Your task to perform on an android device: turn off notifications in google photos Image 0: 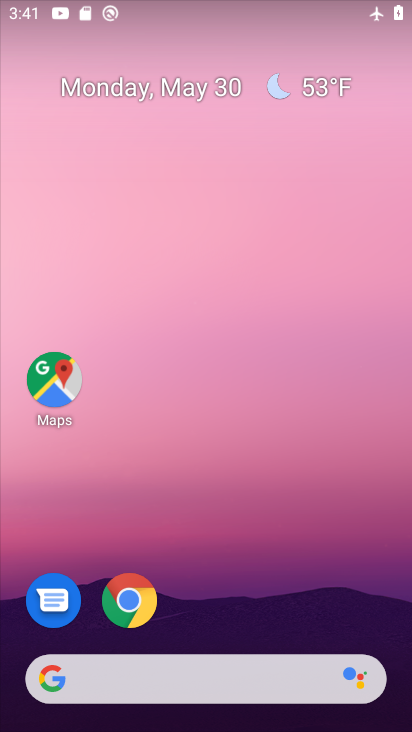
Step 0: drag from (328, 469) to (407, 0)
Your task to perform on an android device: turn off notifications in google photos Image 1: 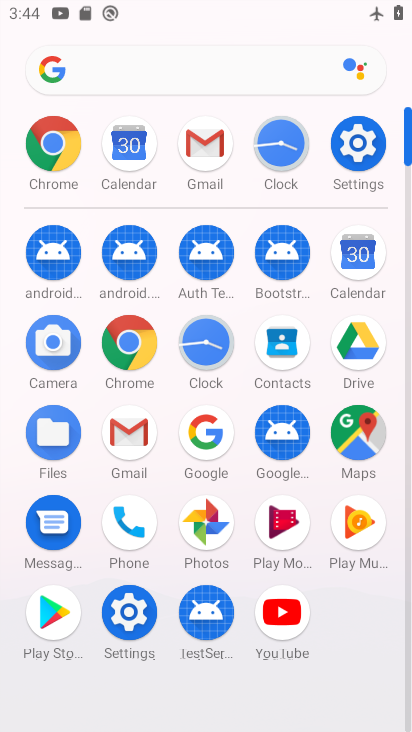
Step 1: click (215, 527)
Your task to perform on an android device: turn off notifications in google photos Image 2: 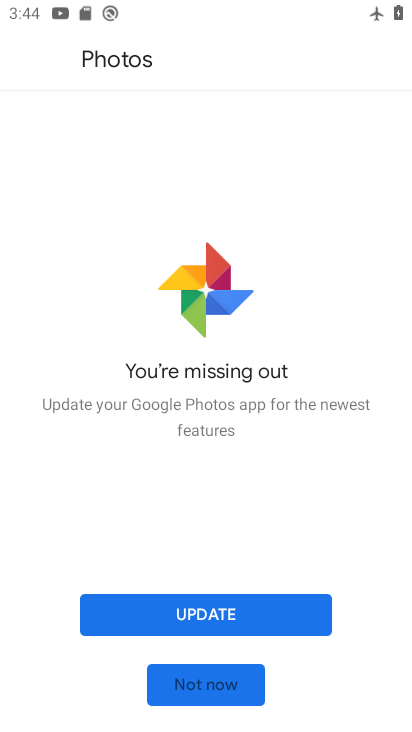
Step 2: click (221, 612)
Your task to perform on an android device: turn off notifications in google photos Image 3: 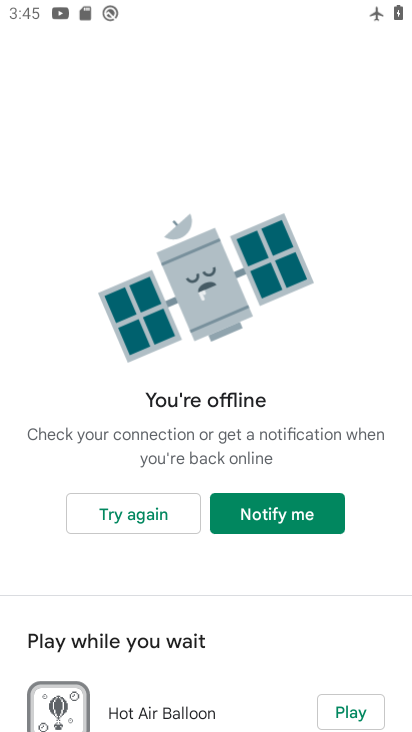
Step 3: click (256, 529)
Your task to perform on an android device: turn off notifications in google photos Image 4: 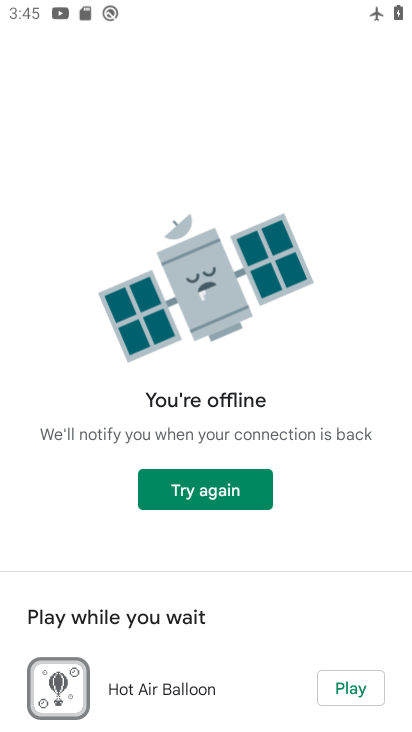
Step 4: click (209, 498)
Your task to perform on an android device: turn off notifications in google photos Image 5: 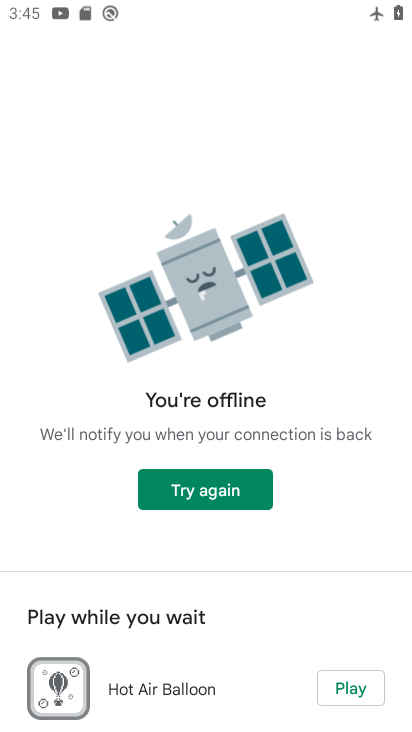
Step 5: click (234, 495)
Your task to perform on an android device: turn off notifications in google photos Image 6: 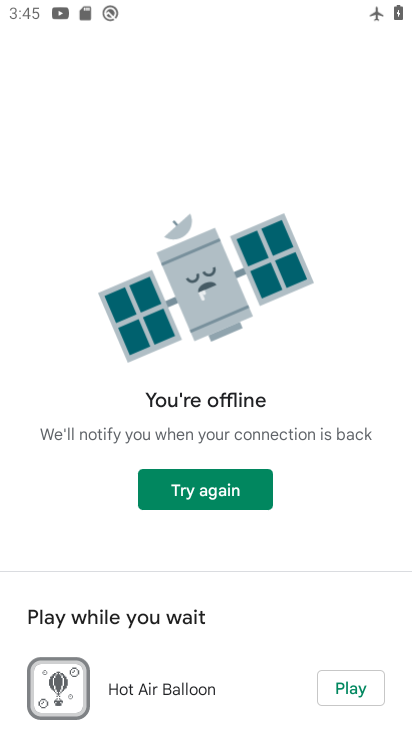
Step 6: task complete